Your task to perform on an android device: Open Chrome and go to the settings page Image 0: 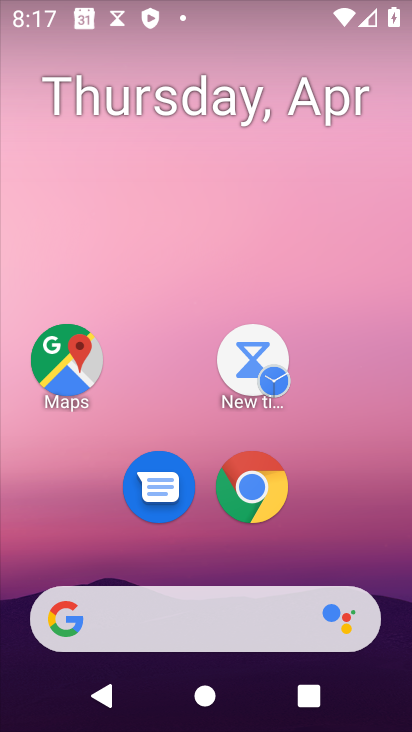
Step 0: click (270, 493)
Your task to perform on an android device: Open Chrome and go to the settings page Image 1: 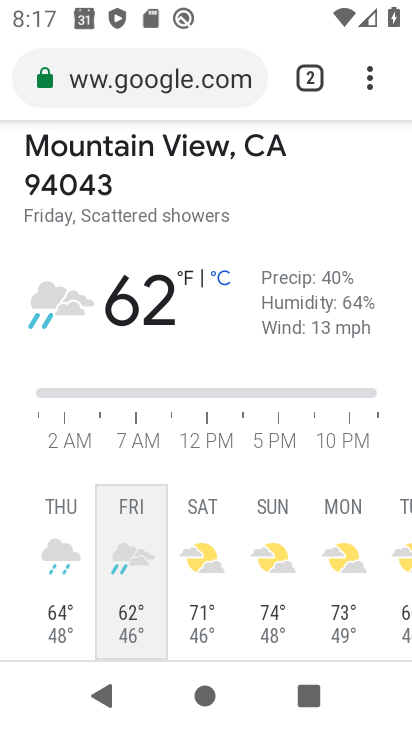
Step 1: task complete